Your task to perform on an android device: clear all cookies in the chrome app Image 0: 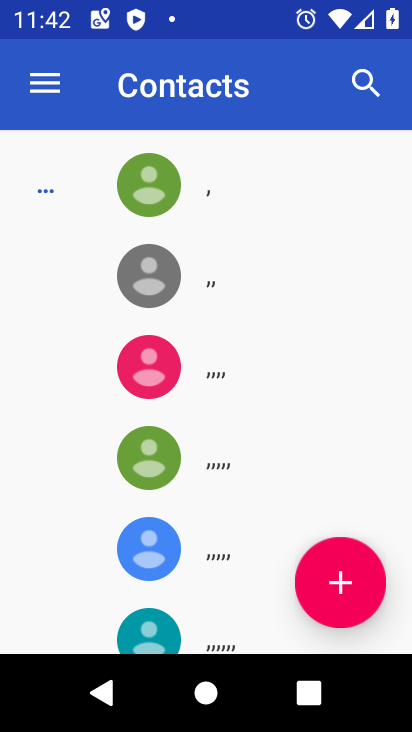
Step 0: press home button
Your task to perform on an android device: clear all cookies in the chrome app Image 1: 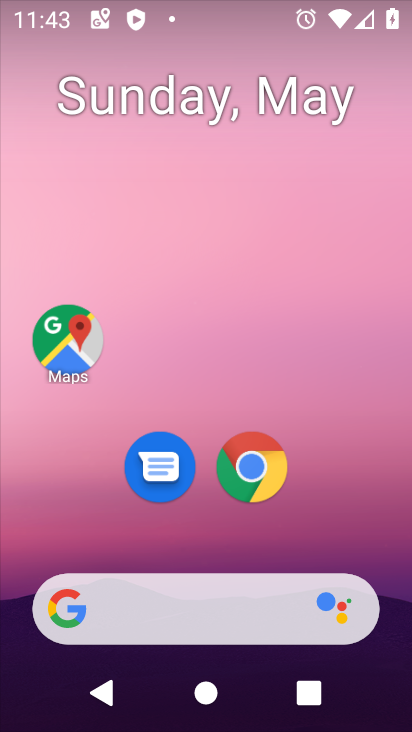
Step 1: click (253, 460)
Your task to perform on an android device: clear all cookies in the chrome app Image 2: 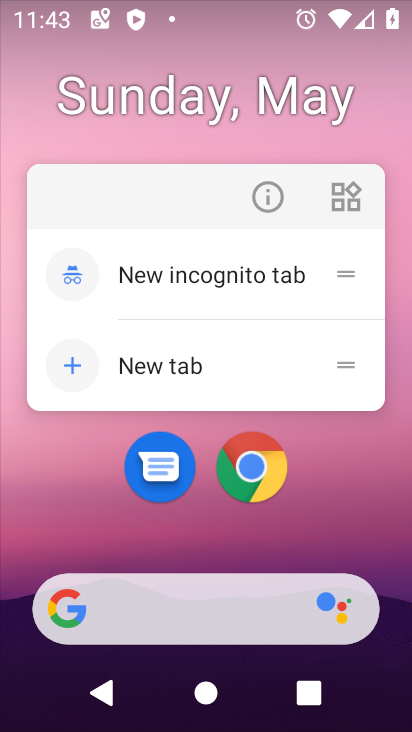
Step 2: click (253, 460)
Your task to perform on an android device: clear all cookies in the chrome app Image 3: 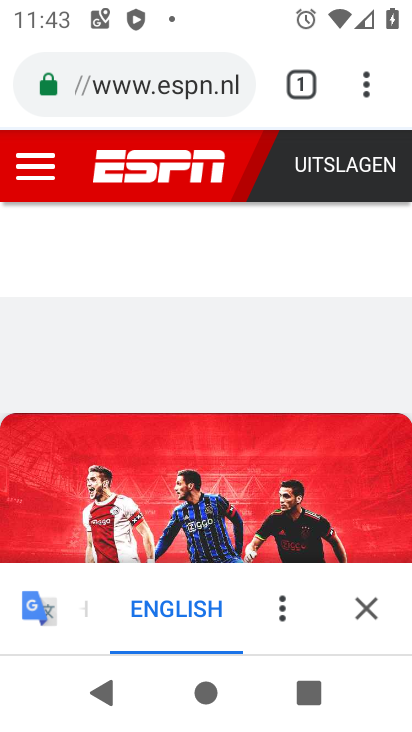
Step 3: click (367, 86)
Your task to perform on an android device: clear all cookies in the chrome app Image 4: 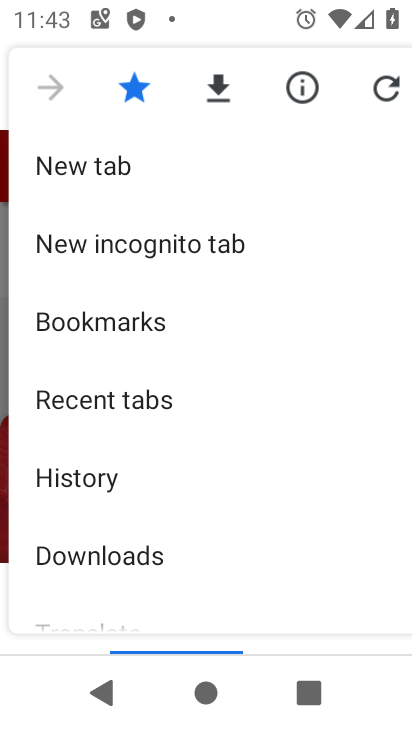
Step 4: drag from (224, 431) to (190, 42)
Your task to perform on an android device: clear all cookies in the chrome app Image 5: 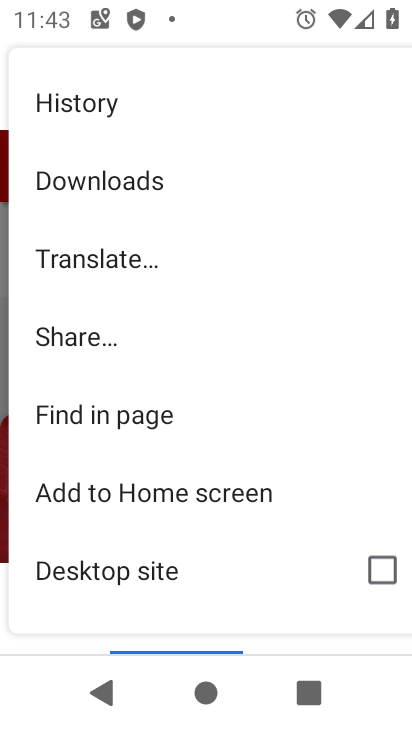
Step 5: drag from (216, 534) to (204, 176)
Your task to perform on an android device: clear all cookies in the chrome app Image 6: 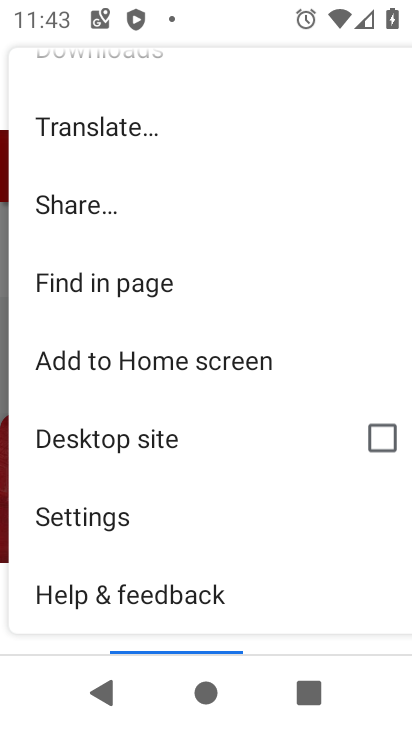
Step 6: click (73, 521)
Your task to perform on an android device: clear all cookies in the chrome app Image 7: 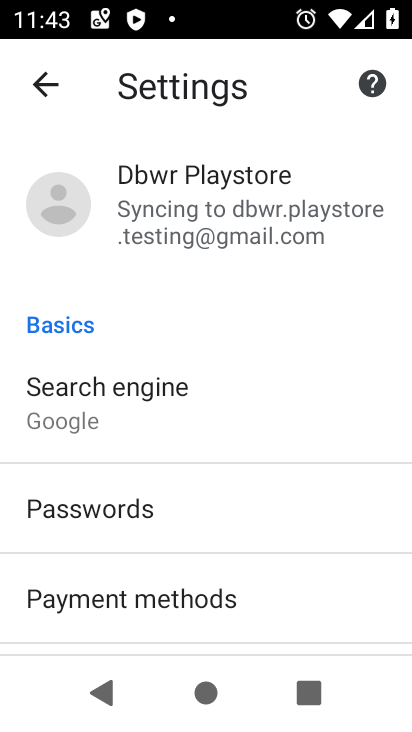
Step 7: drag from (208, 471) to (201, 136)
Your task to perform on an android device: clear all cookies in the chrome app Image 8: 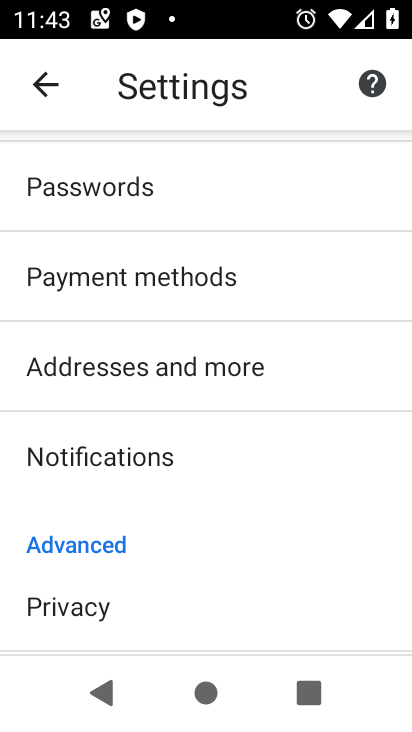
Step 8: click (78, 611)
Your task to perform on an android device: clear all cookies in the chrome app Image 9: 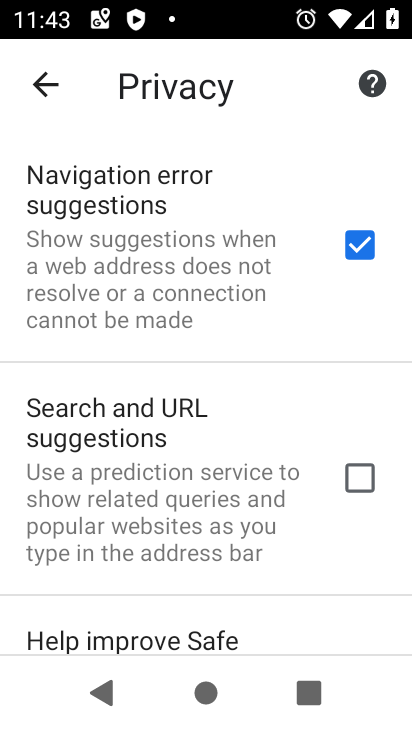
Step 9: drag from (179, 546) to (175, 198)
Your task to perform on an android device: clear all cookies in the chrome app Image 10: 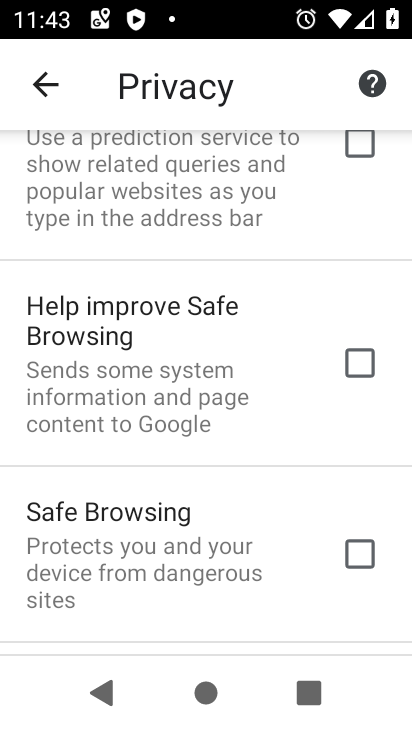
Step 10: drag from (157, 522) to (165, 158)
Your task to perform on an android device: clear all cookies in the chrome app Image 11: 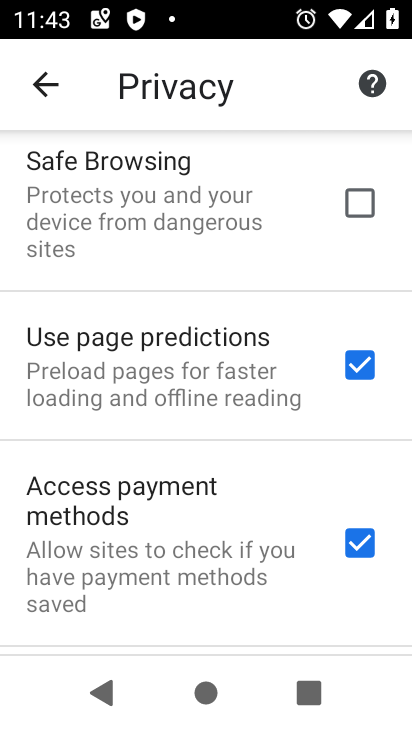
Step 11: drag from (151, 493) to (158, 150)
Your task to perform on an android device: clear all cookies in the chrome app Image 12: 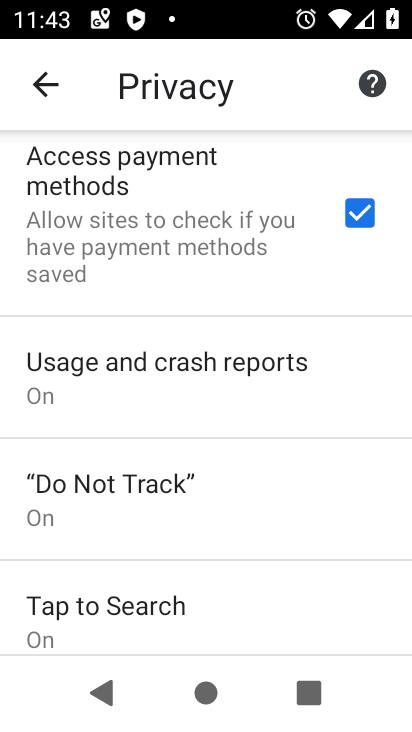
Step 12: drag from (122, 580) to (144, 83)
Your task to perform on an android device: clear all cookies in the chrome app Image 13: 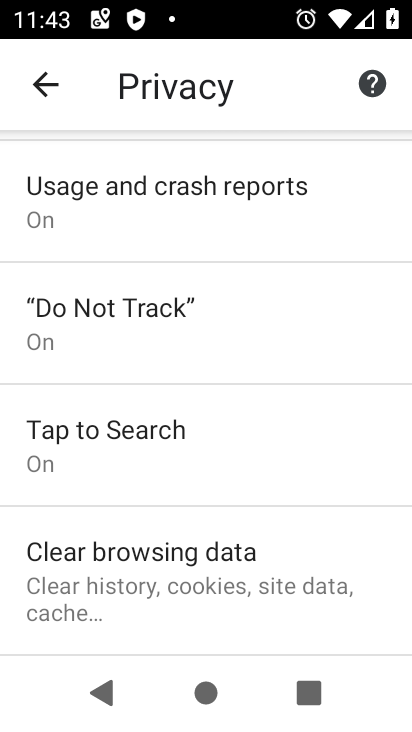
Step 13: click (161, 563)
Your task to perform on an android device: clear all cookies in the chrome app Image 14: 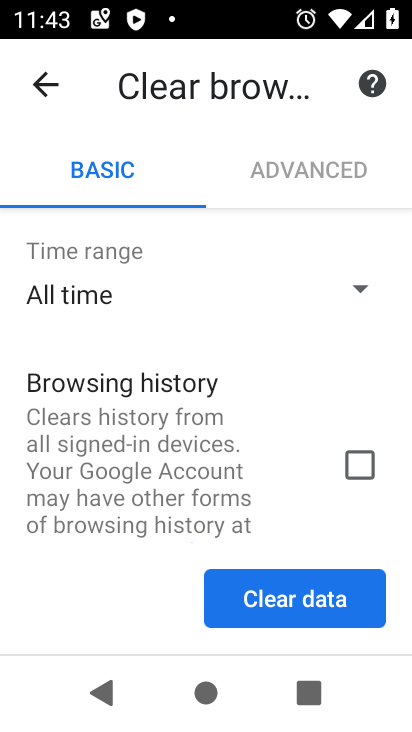
Step 14: drag from (142, 484) to (141, 161)
Your task to perform on an android device: clear all cookies in the chrome app Image 15: 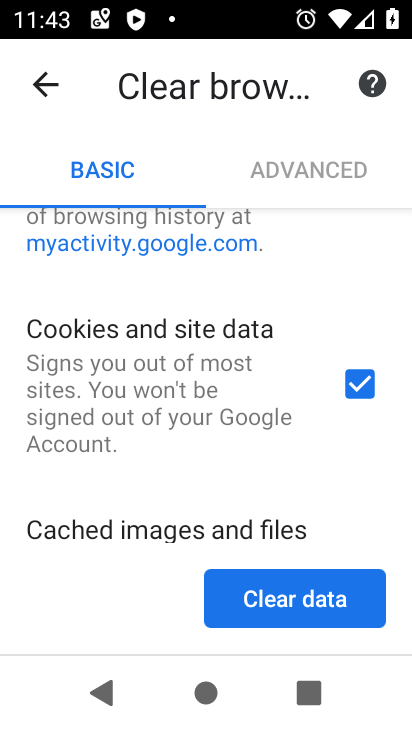
Step 15: drag from (134, 476) to (141, 160)
Your task to perform on an android device: clear all cookies in the chrome app Image 16: 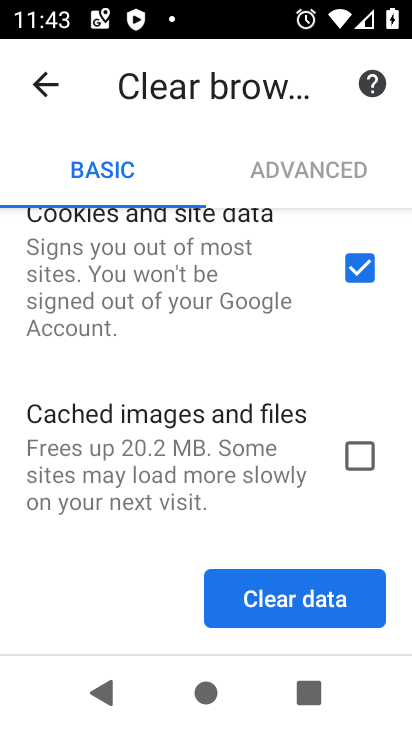
Step 16: click (297, 597)
Your task to perform on an android device: clear all cookies in the chrome app Image 17: 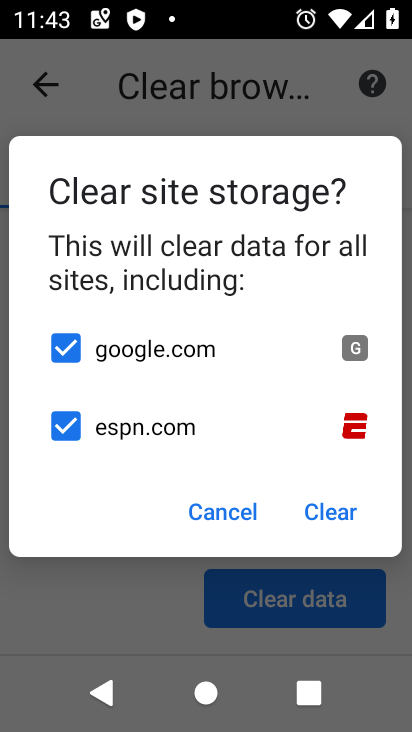
Step 17: click (335, 512)
Your task to perform on an android device: clear all cookies in the chrome app Image 18: 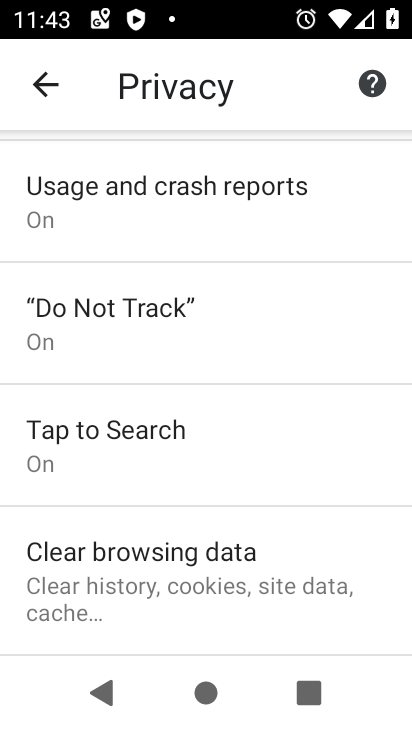
Step 18: task complete